Your task to perform on an android device: Open Reddit.com Image 0: 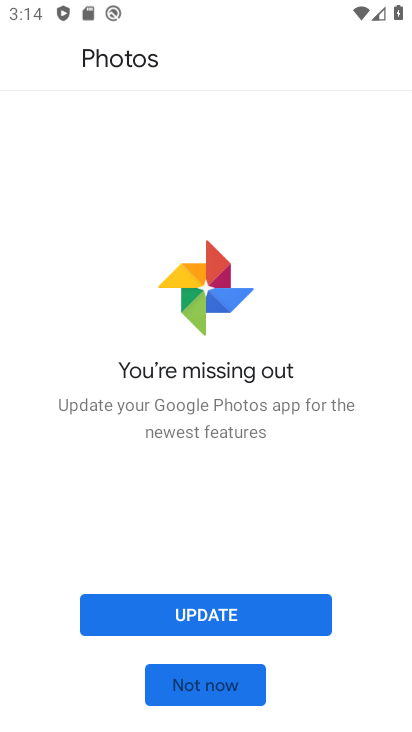
Step 0: click (208, 683)
Your task to perform on an android device: Open Reddit.com Image 1: 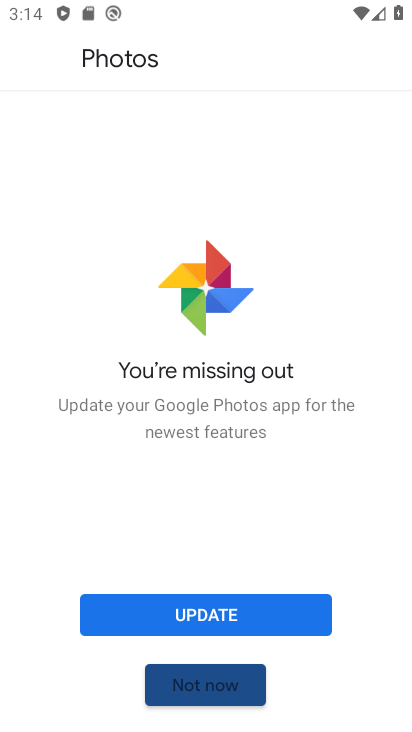
Step 1: click (209, 683)
Your task to perform on an android device: Open Reddit.com Image 2: 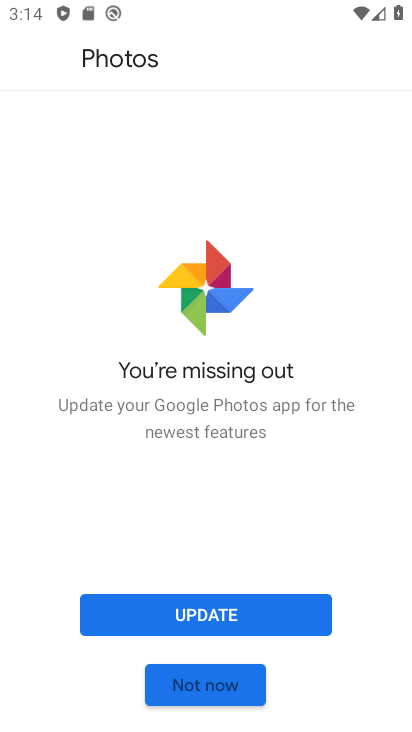
Step 2: click (209, 683)
Your task to perform on an android device: Open Reddit.com Image 3: 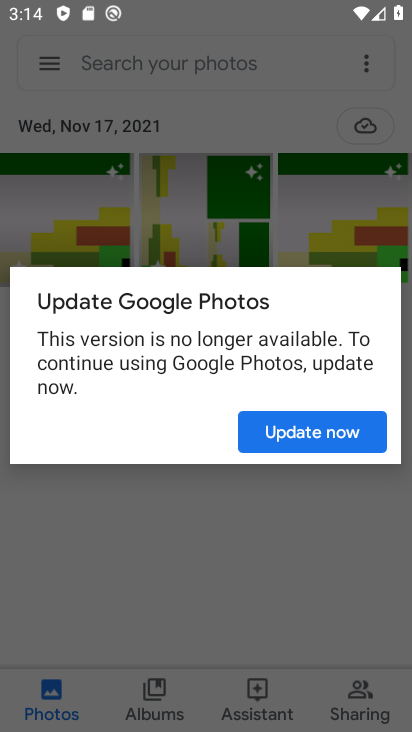
Step 3: click (210, 683)
Your task to perform on an android device: Open Reddit.com Image 4: 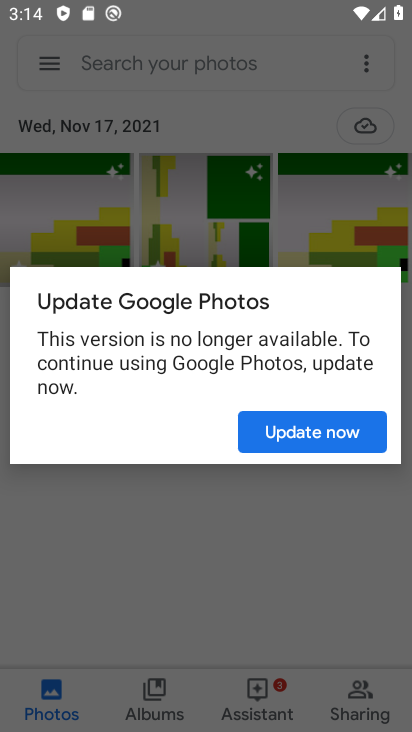
Step 4: press home button
Your task to perform on an android device: Open Reddit.com Image 5: 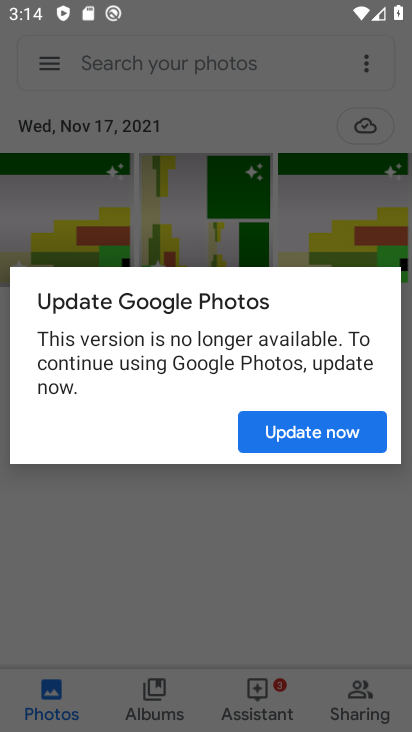
Step 5: press home button
Your task to perform on an android device: Open Reddit.com Image 6: 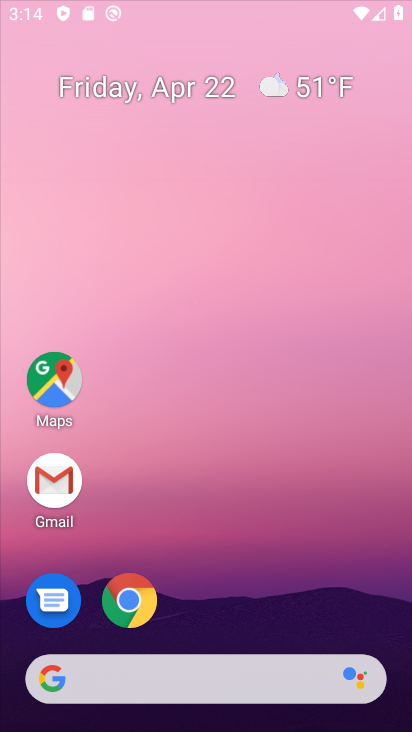
Step 6: press home button
Your task to perform on an android device: Open Reddit.com Image 7: 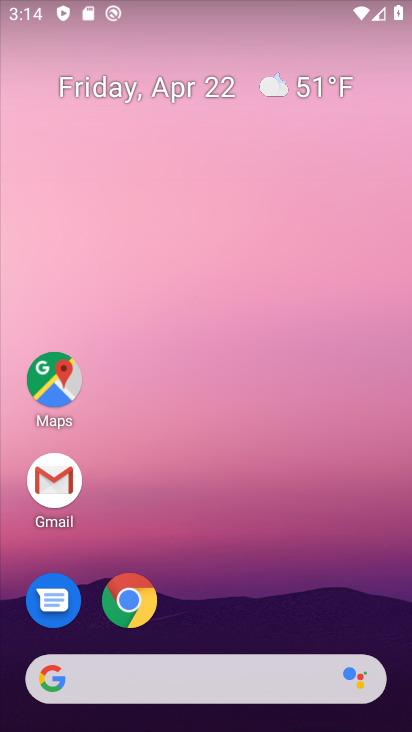
Step 7: press home button
Your task to perform on an android device: Open Reddit.com Image 8: 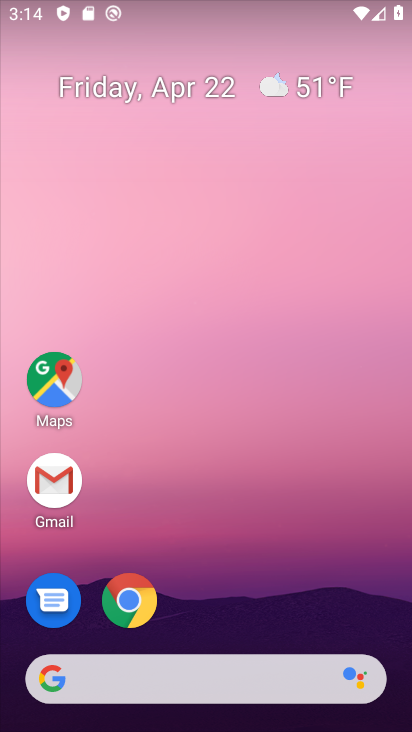
Step 8: drag from (238, 595) to (177, 127)
Your task to perform on an android device: Open Reddit.com Image 9: 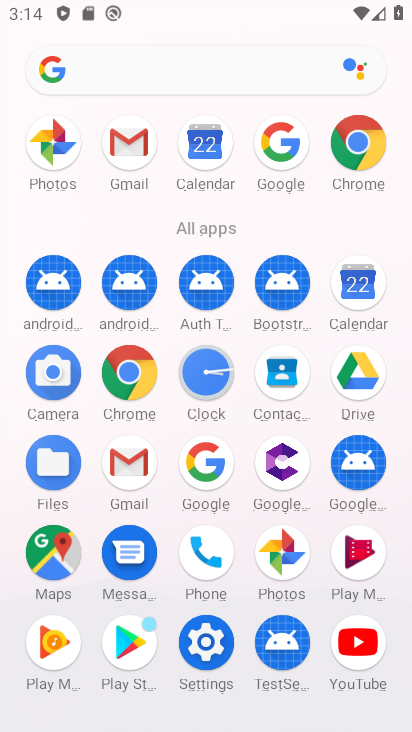
Step 9: click (355, 137)
Your task to perform on an android device: Open Reddit.com Image 10: 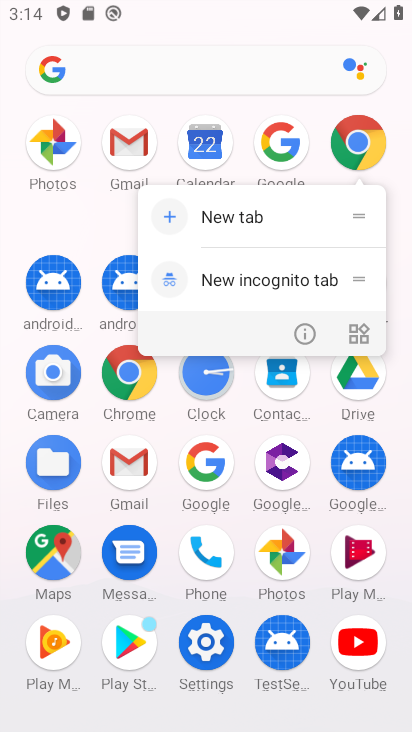
Step 10: click (355, 137)
Your task to perform on an android device: Open Reddit.com Image 11: 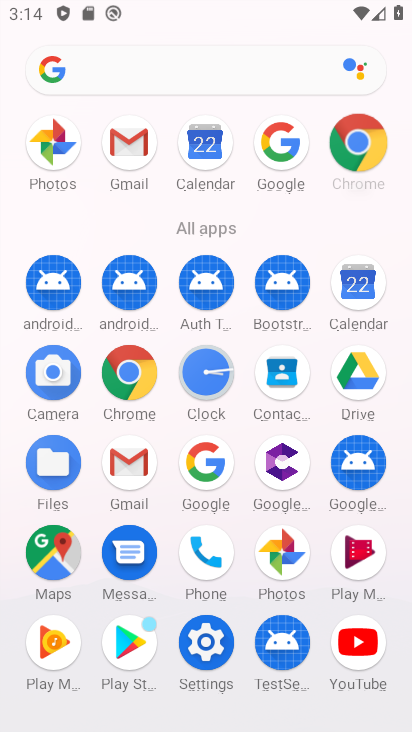
Step 11: click (355, 137)
Your task to perform on an android device: Open Reddit.com Image 12: 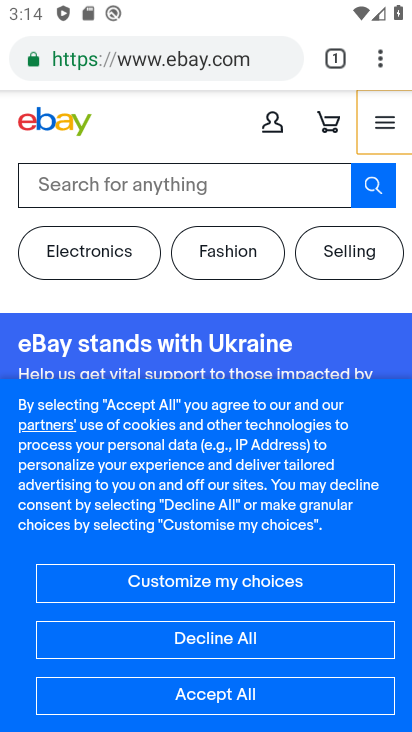
Step 12: click (356, 136)
Your task to perform on an android device: Open Reddit.com Image 13: 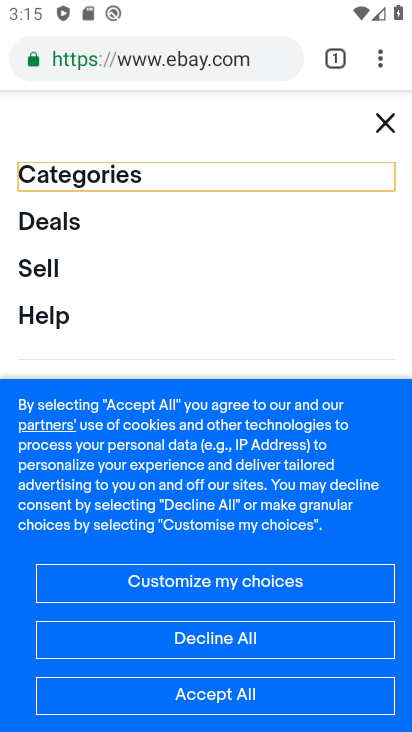
Step 13: click (385, 119)
Your task to perform on an android device: Open Reddit.com Image 14: 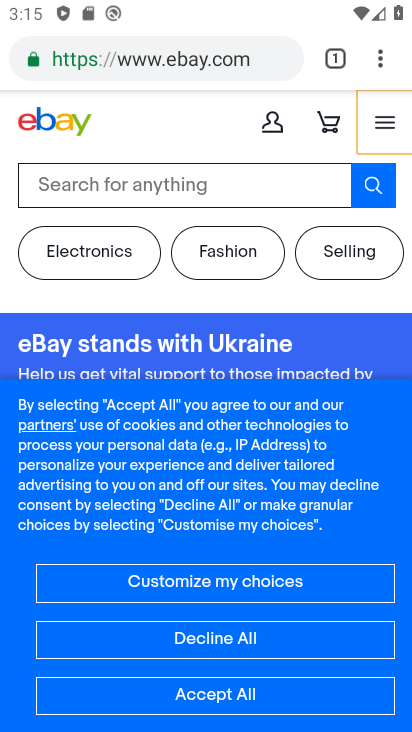
Step 14: click (382, 51)
Your task to perform on an android device: Open Reddit.com Image 15: 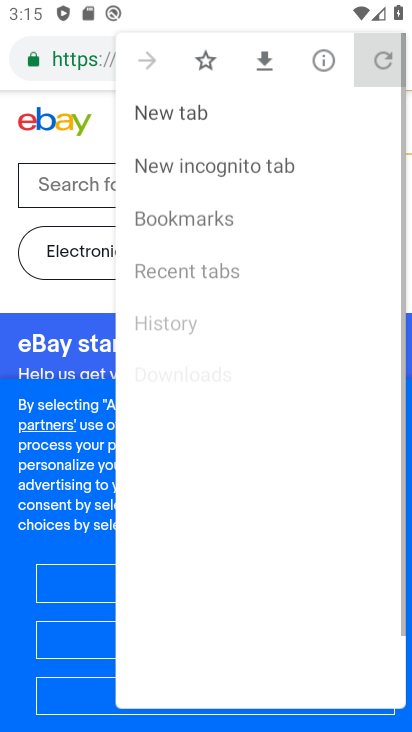
Step 15: click (383, 51)
Your task to perform on an android device: Open Reddit.com Image 16: 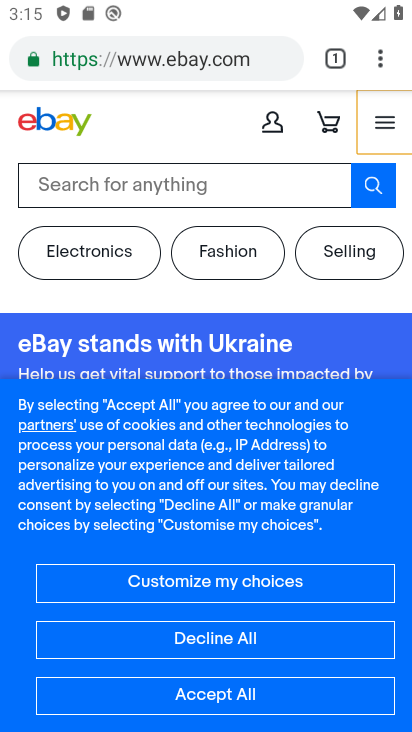
Step 16: drag from (378, 62) to (141, 112)
Your task to perform on an android device: Open Reddit.com Image 17: 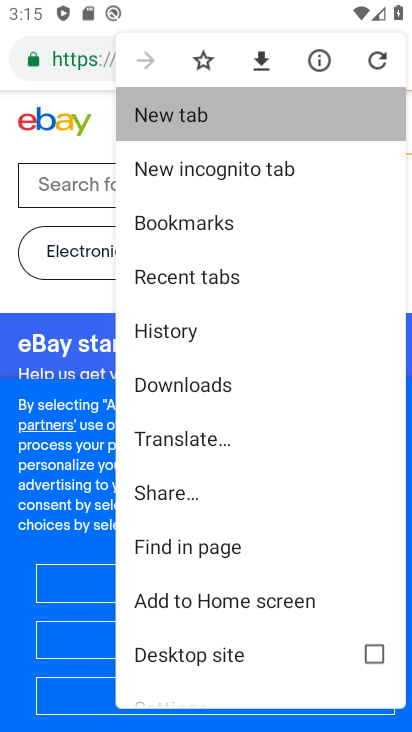
Step 17: click (141, 112)
Your task to perform on an android device: Open Reddit.com Image 18: 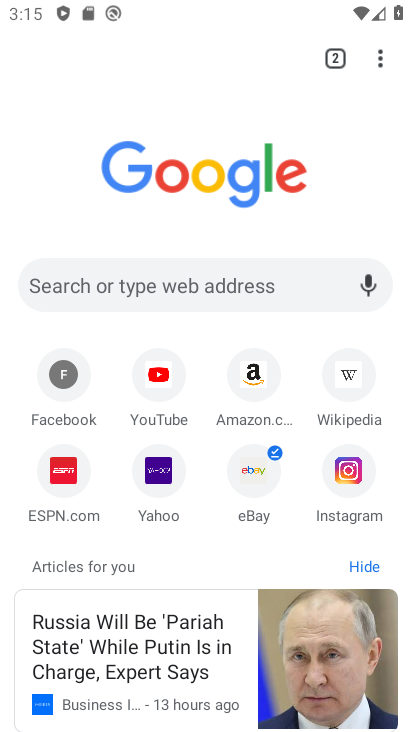
Step 18: click (74, 281)
Your task to perform on an android device: Open Reddit.com Image 19: 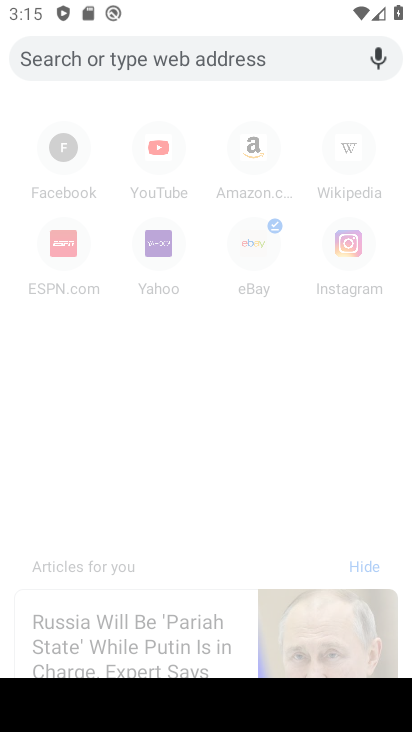
Step 19: type "www.reddit.com"
Your task to perform on an android device: Open Reddit.com Image 20: 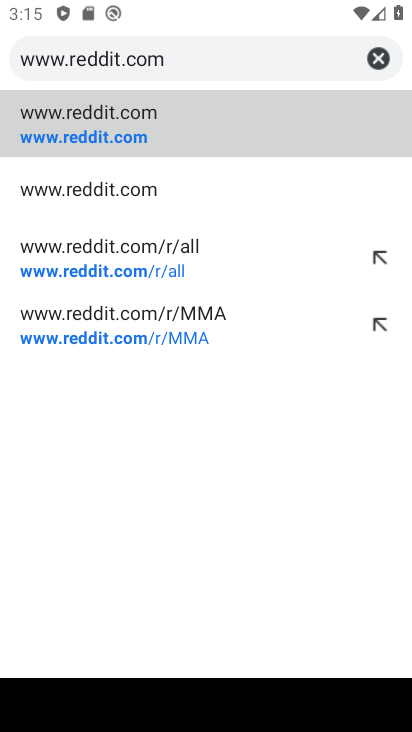
Step 20: click (77, 122)
Your task to perform on an android device: Open Reddit.com Image 21: 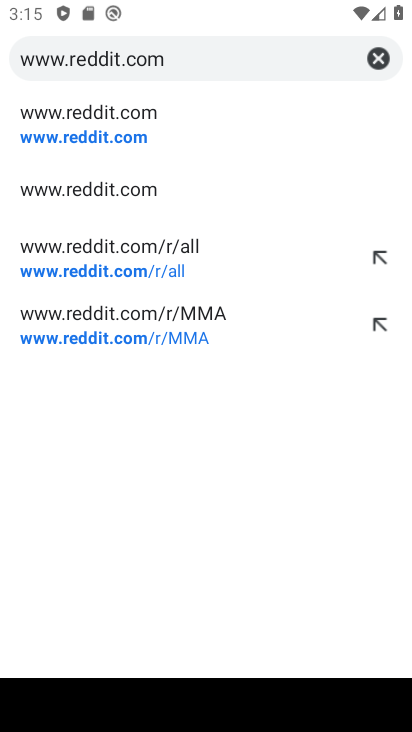
Step 21: click (94, 137)
Your task to perform on an android device: Open Reddit.com Image 22: 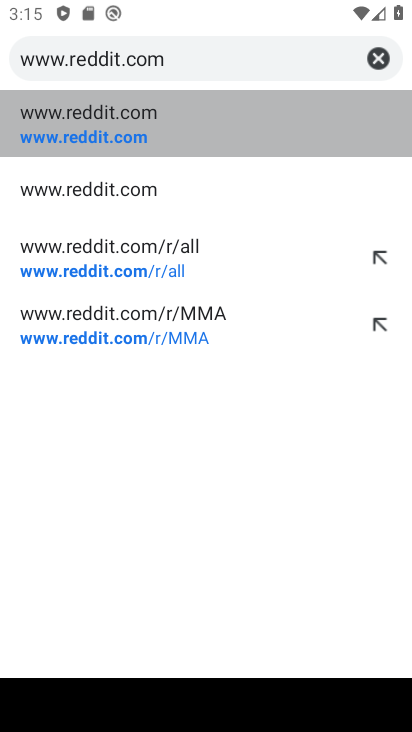
Step 22: click (94, 137)
Your task to perform on an android device: Open Reddit.com Image 23: 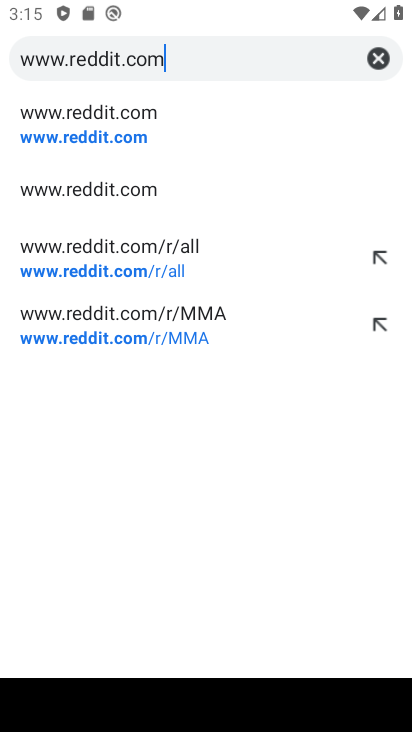
Step 23: click (70, 128)
Your task to perform on an android device: Open Reddit.com Image 24: 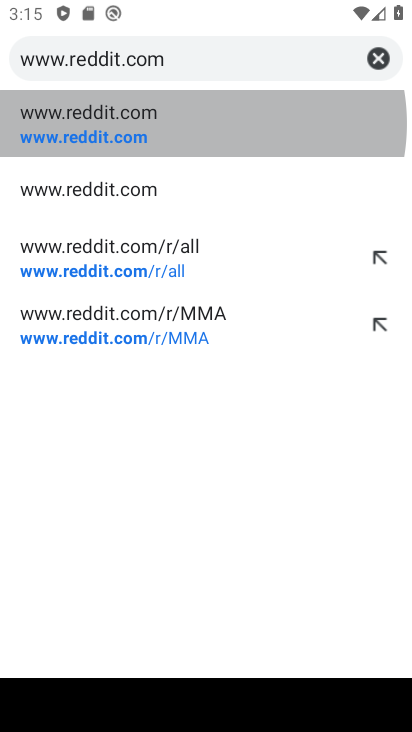
Step 24: click (72, 128)
Your task to perform on an android device: Open Reddit.com Image 25: 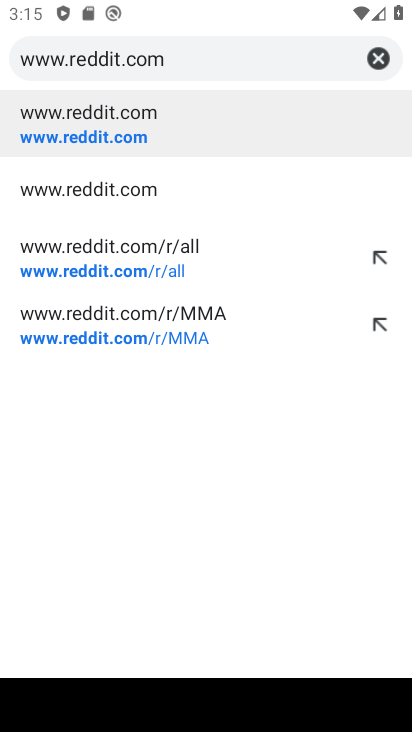
Step 25: click (74, 127)
Your task to perform on an android device: Open Reddit.com Image 26: 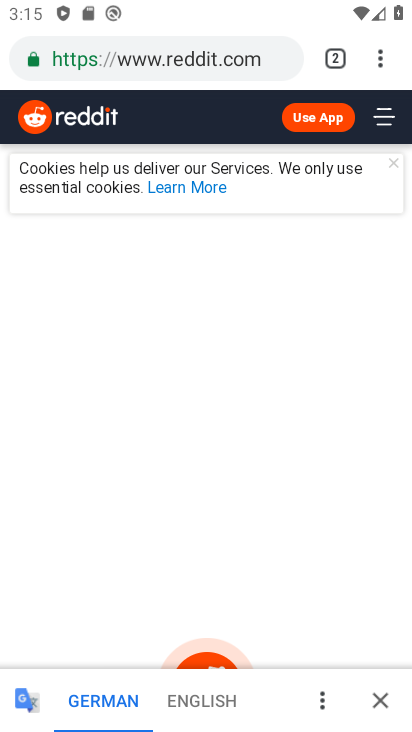
Step 26: task complete